Your task to perform on an android device: Go to internet settings Image 0: 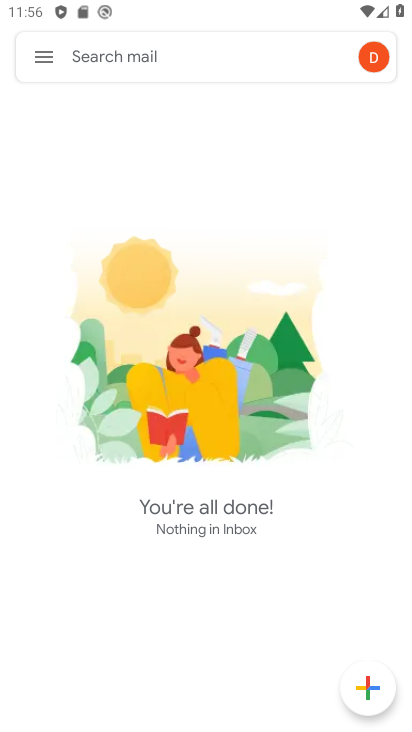
Step 0: press home button
Your task to perform on an android device: Go to internet settings Image 1: 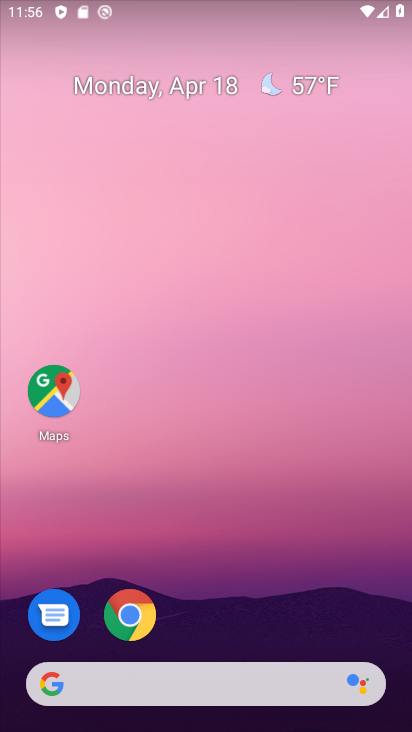
Step 1: drag from (242, 321) to (242, 202)
Your task to perform on an android device: Go to internet settings Image 2: 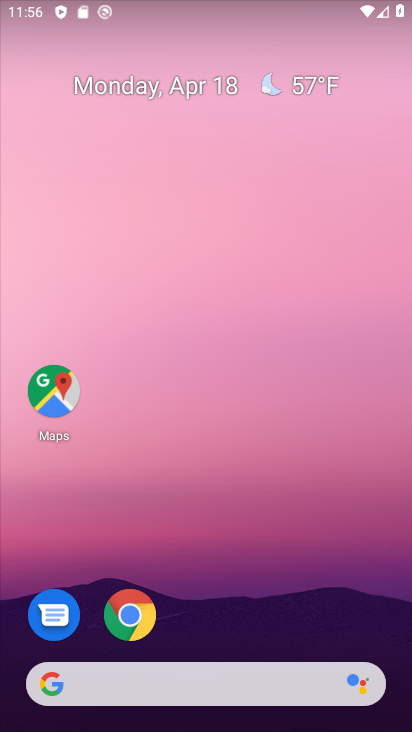
Step 2: drag from (264, 636) to (208, 107)
Your task to perform on an android device: Go to internet settings Image 3: 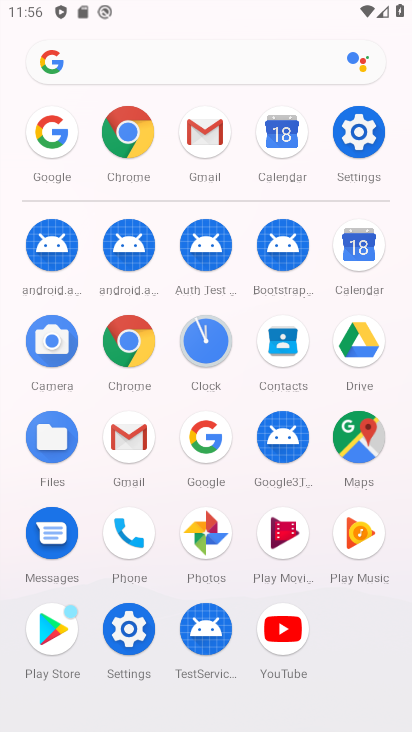
Step 3: click (360, 135)
Your task to perform on an android device: Go to internet settings Image 4: 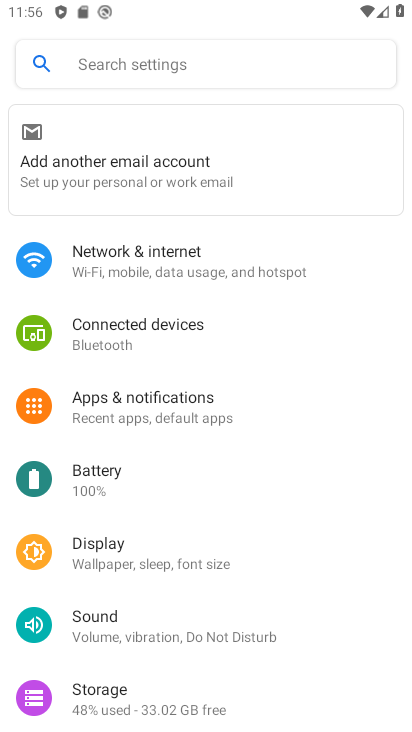
Step 4: drag from (203, 557) to (218, 428)
Your task to perform on an android device: Go to internet settings Image 5: 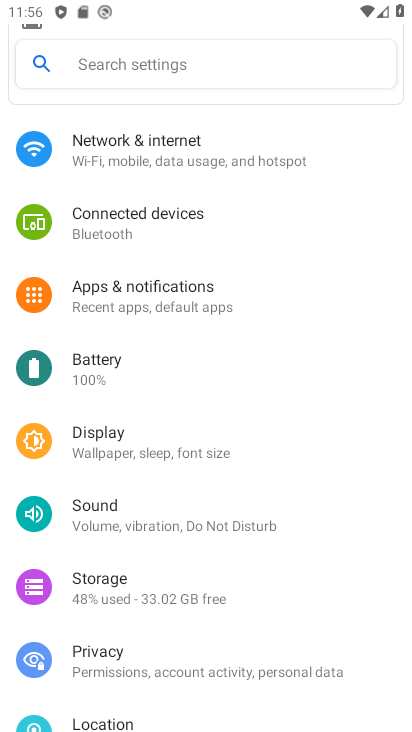
Step 5: click (151, 156)
Your task to perform on an android device: Go to internet settings Image 6: 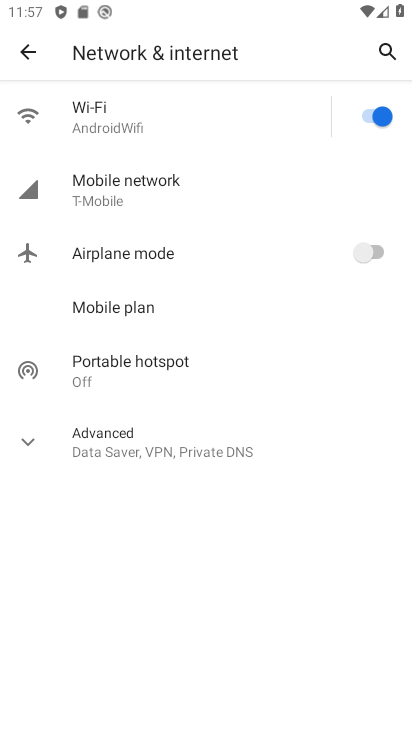
Step 6: click (111, 443)
Your task to perform on an android device: Go to internet settings Image 7: 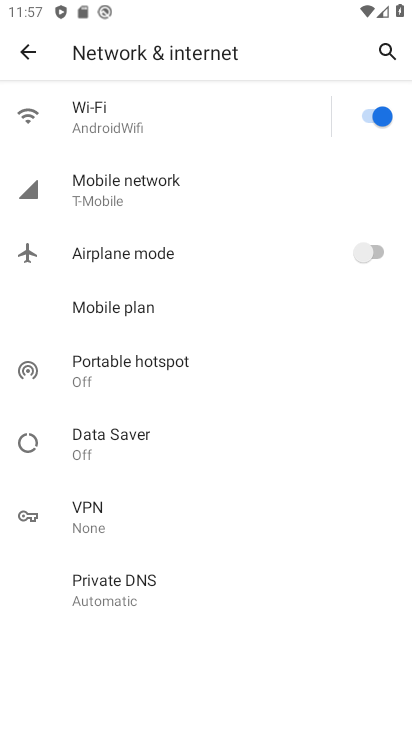
Step 7: task complete